Your task to perform on an android device: star an email in the gmail app Image 0: 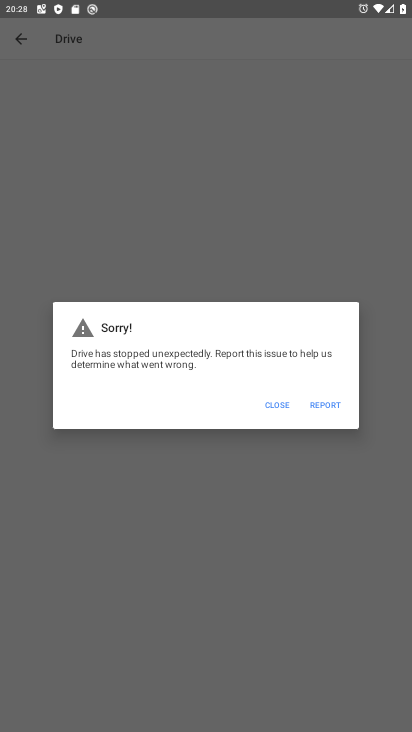
Step 0: drag from (271, 382) to (285, 310)
Your task to perform on an android device: star an email in the gmail app Image 1: 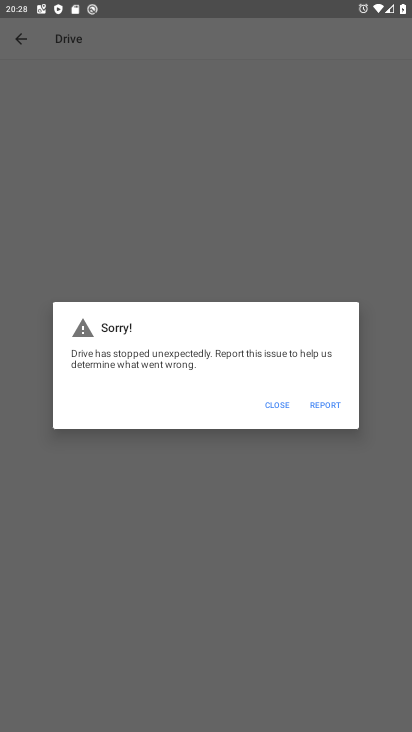
Step 1: press home button
Your task to perform on an android device: star an email in the gmail app Image 2: 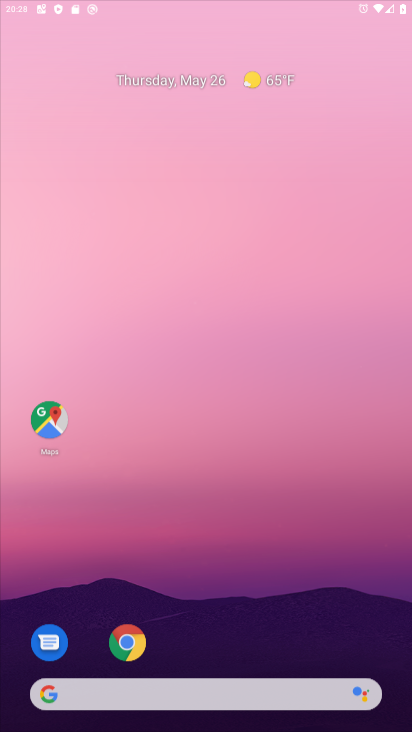
Step 2: drag from (270, 477) to (271, 247)
Your task to perform on an android device: star an email in the gmail app Image 3: 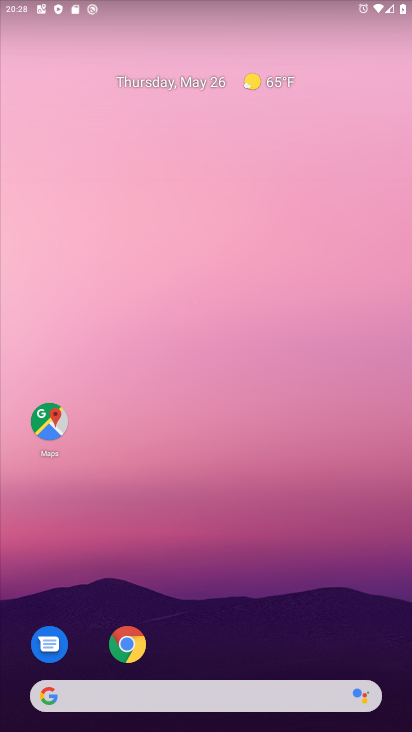
Step 3: drag from (226, 669) to (199, 265)
Your task to perform on an android device: star an email in the gmail app Image 4: 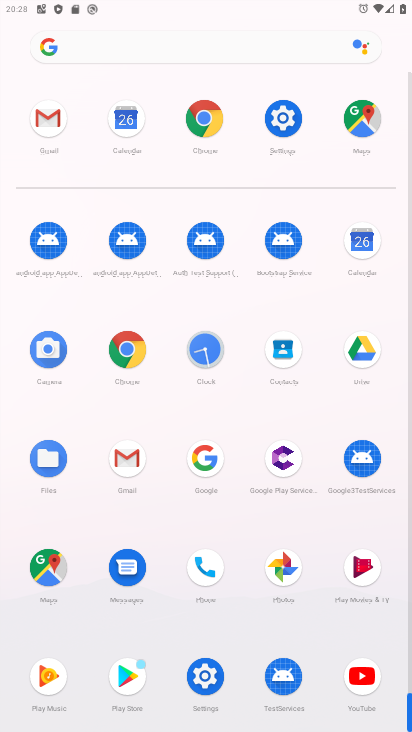
Step 4: click (135, 462)
Your task to perform on an android device: star an email in the gmail app Image 5: 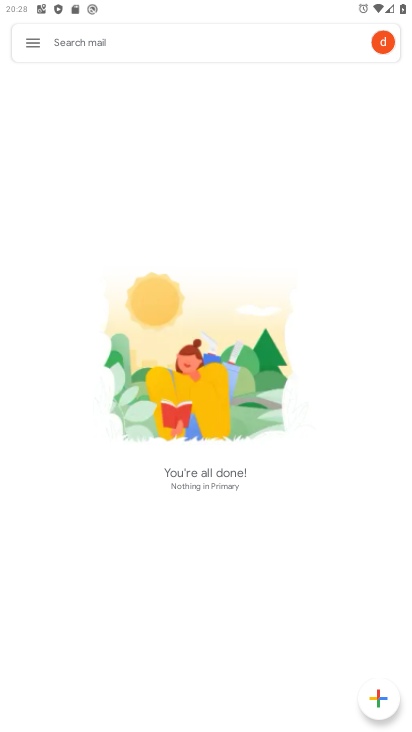
Step 5: click (33, 36)
Your task to perform on an android device: star an email in the gmail app Image 6: 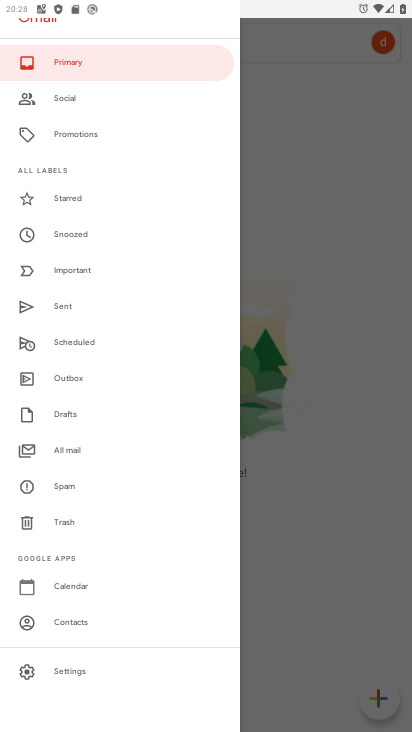
Step 6: click (66, 187)
Your task to perform on an android device: star an email in the gmail app Image 7: 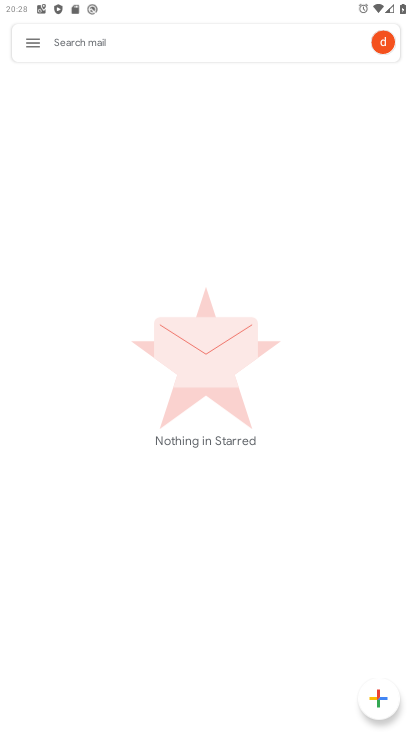
Step 7: task complete